Your task to perform on an android device: toggle airplane mode Image 0: 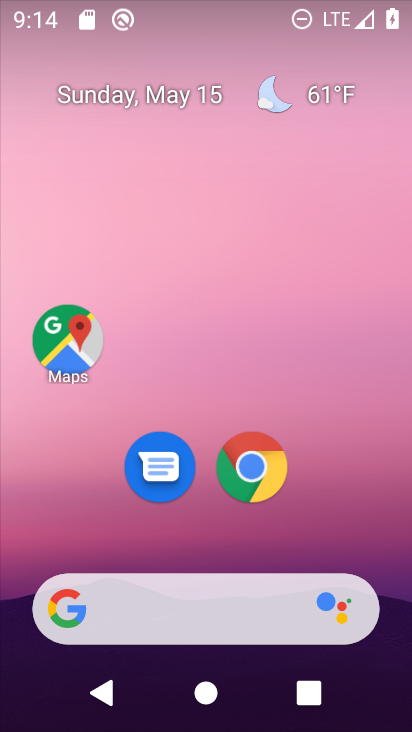
Step 0: drag from (212, 21) to (131, 580)
Your task to perform on an android device: toggle airplane mode Image 1: 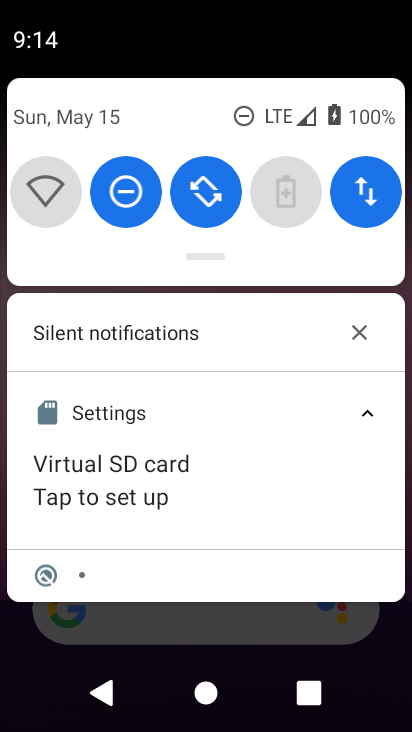
Step 1: drag from (204, 108) to (202, 526)
Your task to perform on an android device: toggle airplane mode Image 2: 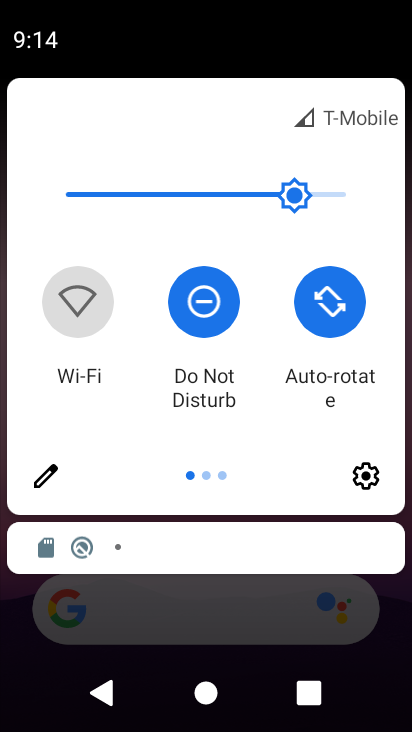
Step 2: drag from (357, 434) to (70, 413)
Your task to perform on an android device: toggle airplane mode Image 3: 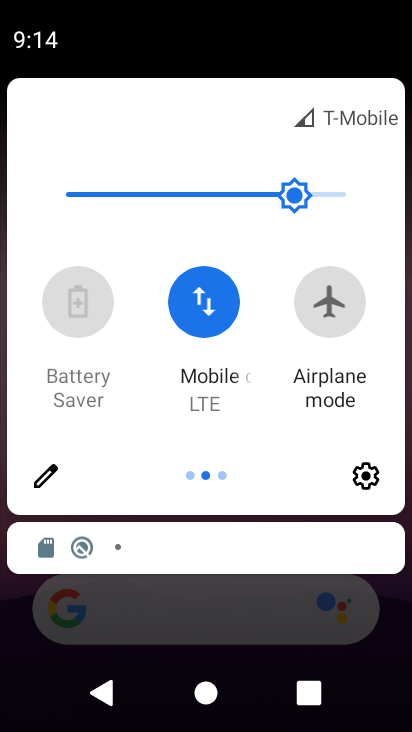
Step 3: click (329, 313)
Your task to perform on an android device: toggle airplane mode Image 4: 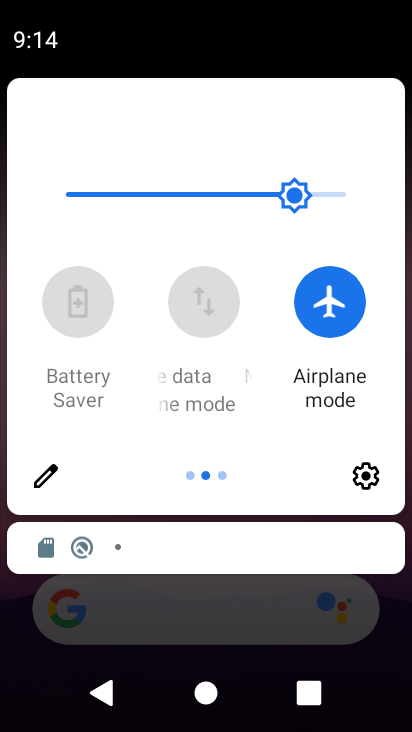
Step 4: click (329, 313)
Your task to perform on an android device: toggle airplane mode Image 5: 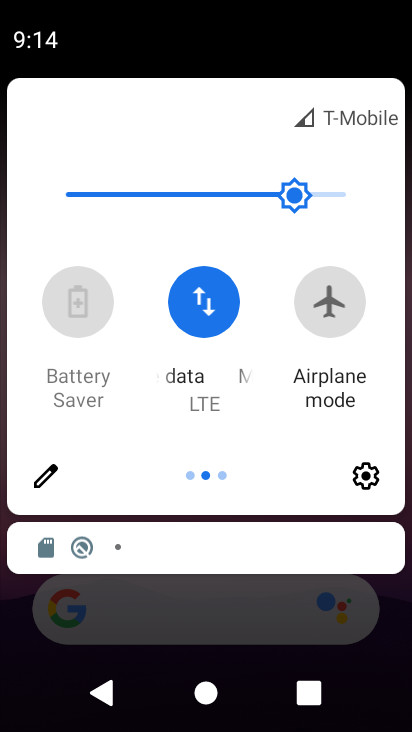
Step 5: click (329, 313)
Your task to perform on an android device: toggle airplane mode Image 6: 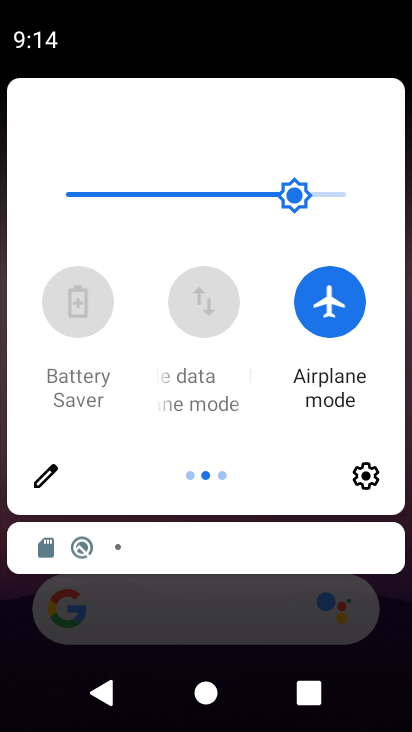
Step 6: click (329, 313)
Your task to perform on an android device: toggle airplane mode Image 7: 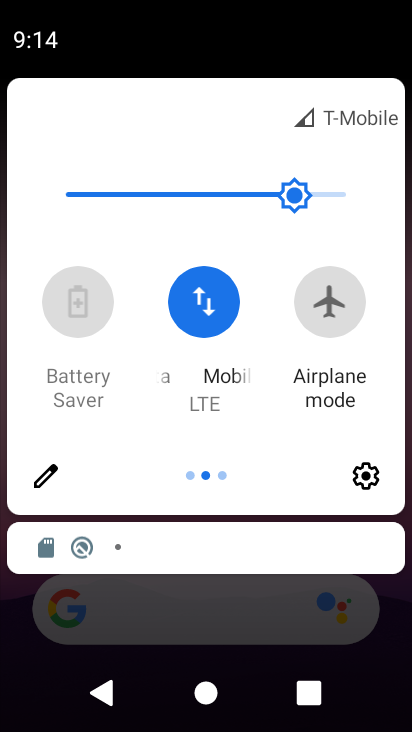
Step 7: task complete